Your task to perform on an android device: install app "Pinterest" Image 0: 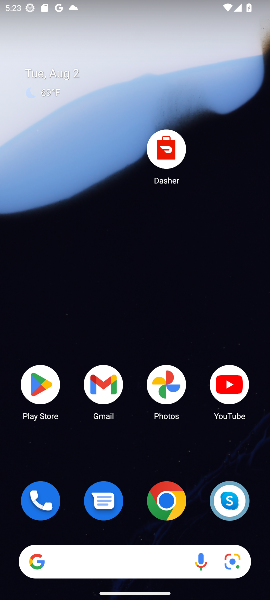
Step 0: click (43, 391)
Your task to perform on an android device: install app "Pinterest" Image 1: 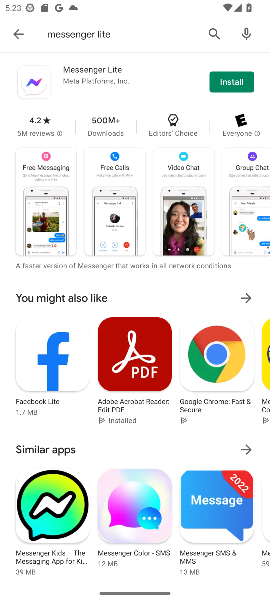
Step 1: click (213, 31)
Your task to perform on an android device: install app "Pinterest" Image 2: 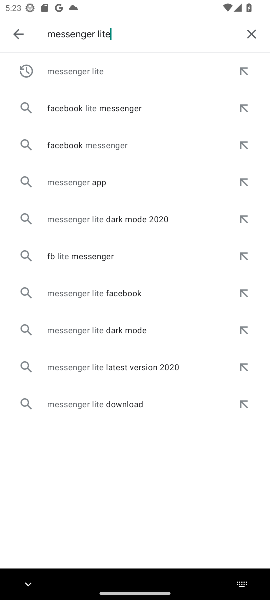
Step 2: click (251, 30)
Your task to perform on an android device: install app "Pinterest" Image 3: 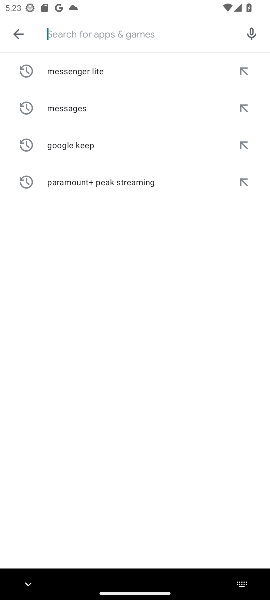
Step 3: type "Pinterest"
Your task to perform on an android device: install app "Pinterest" Image 4: 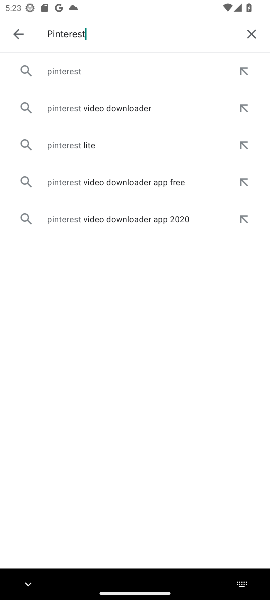
Step 4: click (54, 72)
Your task to perform on an android device: install app "Pinterest" Image 5: 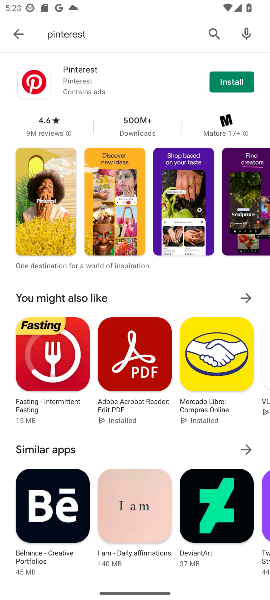
Step 5: click (232, 88)
Your task to perform on an android device: install app "Pinterest" Image 6: 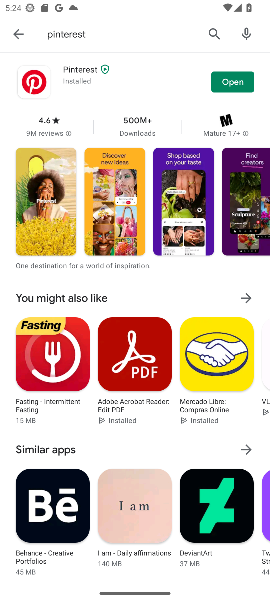
Step 6: task complete